Your task to perform on an android device: toggle notifications settings in the gmail app Image 0: 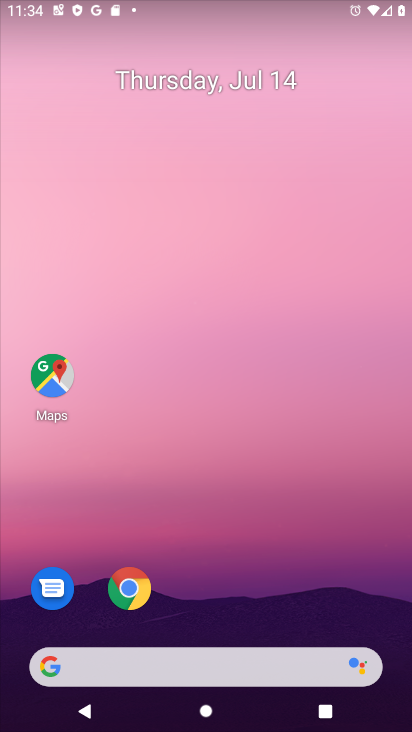
Step 0: drag from (293, 619) to (216, 107)
Your task to perform on an android device: toggle notifications settings in the gmail app Image 1: 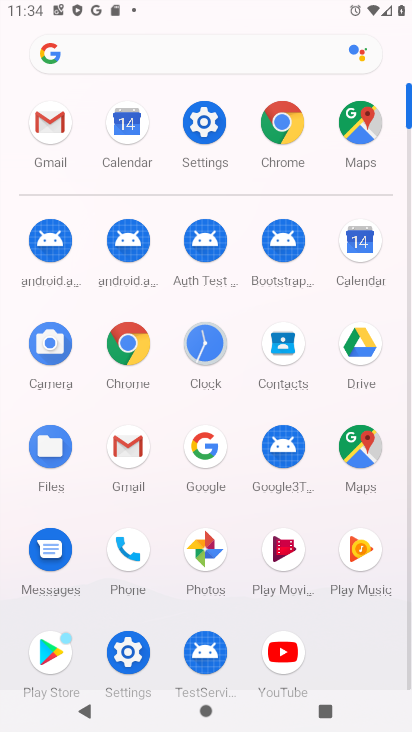
Step 1: click (62, 121)
Your task to perform on an android device: toggle notifications settings in the gmail app Image 2: 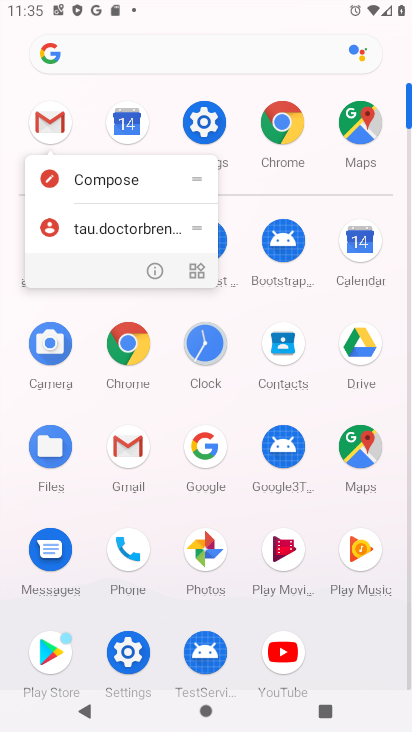
Step 2: click (153, 272)
Your task to perform on an android device: toggle notifications settings in the gmail app Image 3: 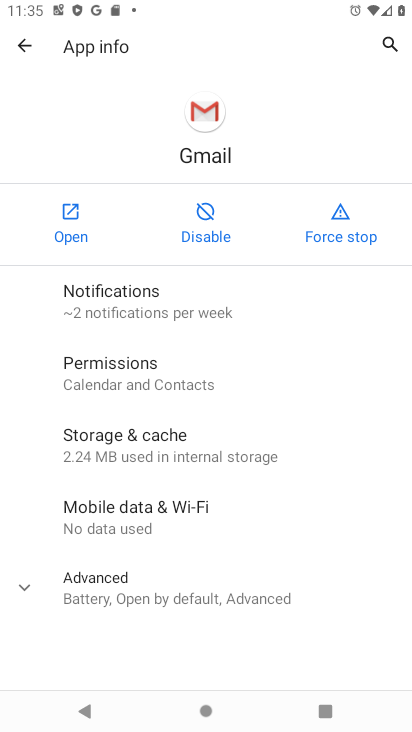
Step 3: click (108, 295)
Your task to perform on an android device: toggle notifications settings in the gmail app Image 4: 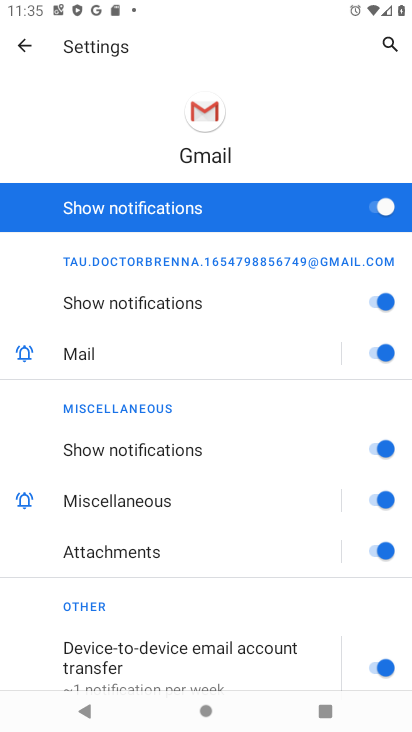
Step 4: click (210, 221)
Your task to perform on an android device: toggle notifications settings in the gmail app Image 5: 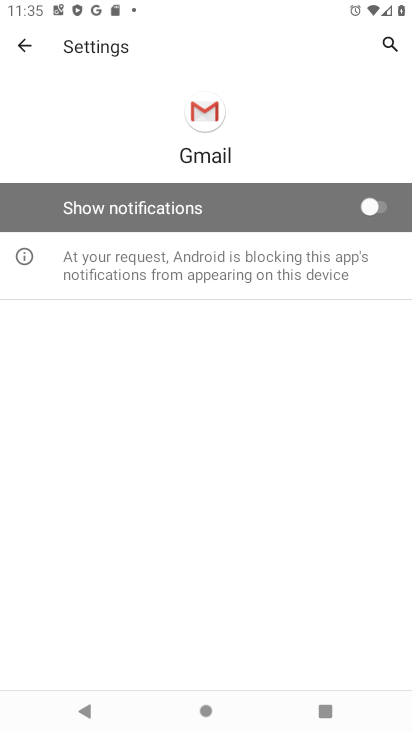
Step 5: task complete